Your task to perform on an android device: Open calendar and show me the first week of next month Image 0: 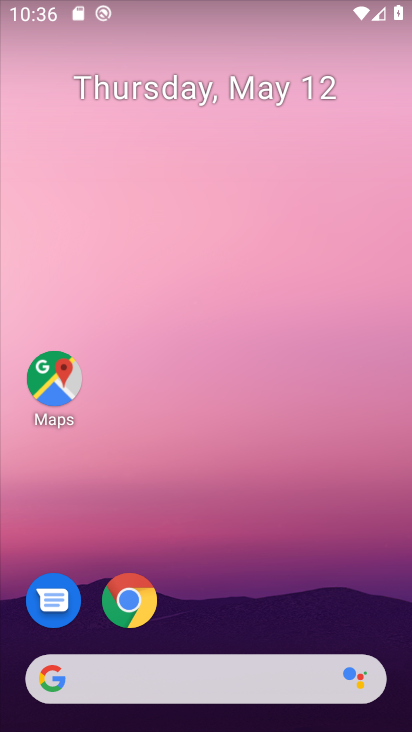
Step 0: drag from (173, 534) to (74, 62)
Your task to perform on an android device: Open calendar and show me the first week of next month Image 1: 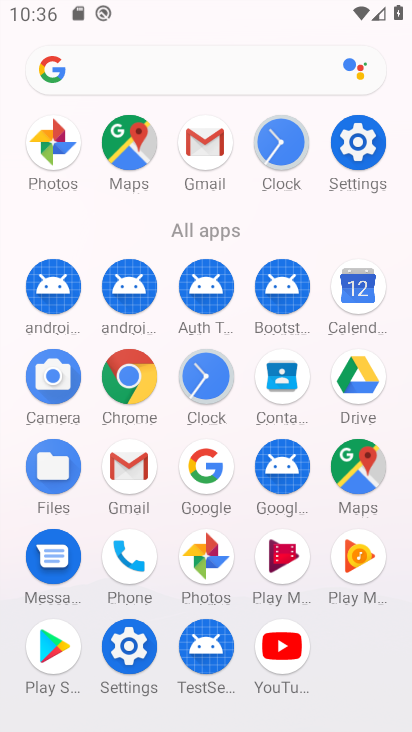
Step 1: click (367, 289)
Your task to perform on an android device: Open calendar and show me the first week of next month Image 2: 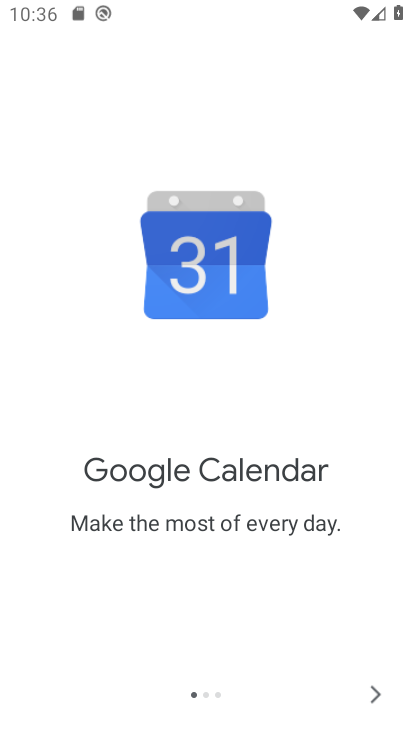
Step 2: click (372, 693)
Your task to perform on an android device: Open calendar and show me the first week of next month Image 3: 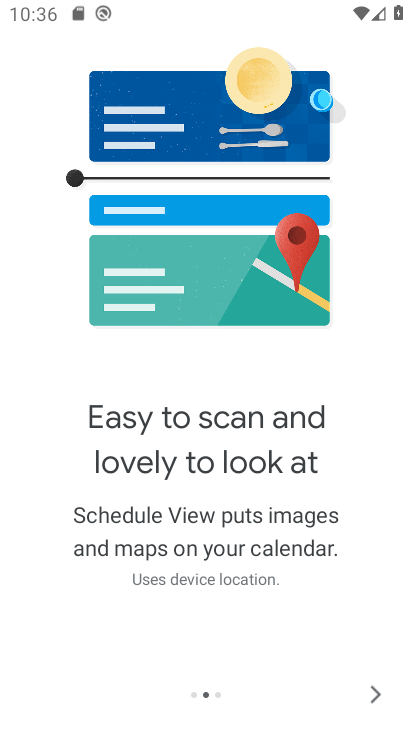
Step 3: click (372, 693)
Your task to perform on an android device: Open calendar and show me the first week of next month Image 4: 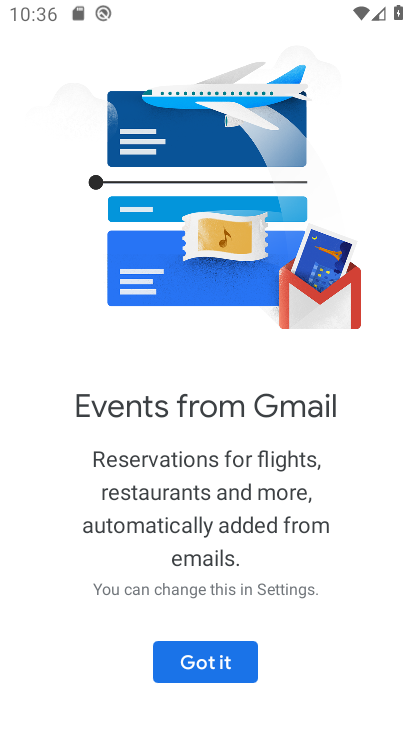
Step 4: click (200, 675)
Your task to perform on an android device: Open calendar and show me the first week of next month Image 5: 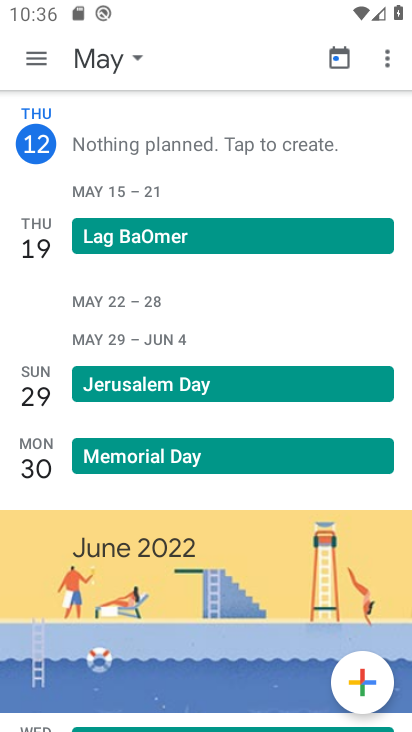
Step 5: click (101, 64)
Your task to perform on an android device: Open calendar and show me the first week of next month Image 6: 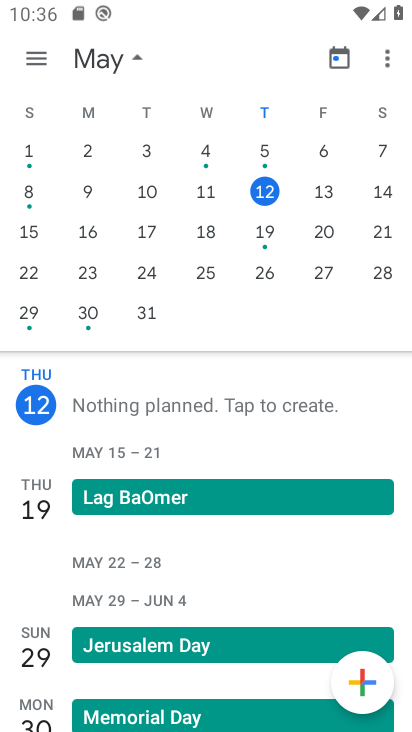
Step 6: drag from (355, 247) to (0, 250)
Your task to perform on an android device: Open calendar and show me the first week of next month Image 7: 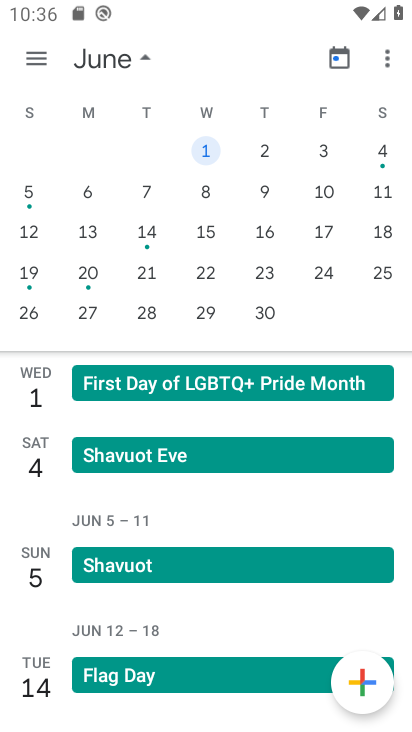
Step 7: click (41, 63)
Your task to perform on an android device: Open calendar and show me the first week of next month Image 8: 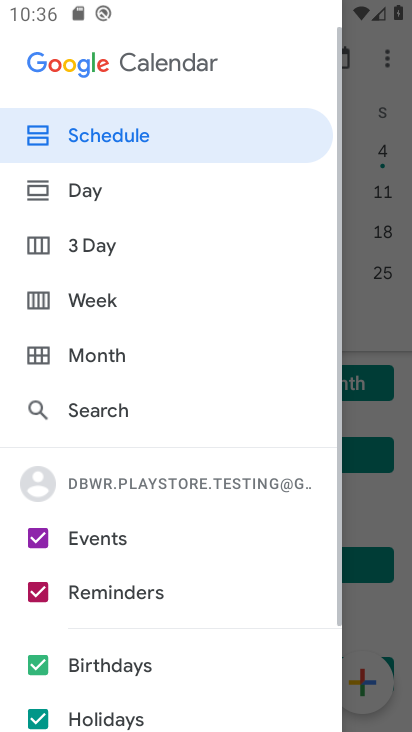
Step 8: click (109, 293)
Your task to perform on an android device: Open calendar and show me the first week of next month Image 9: 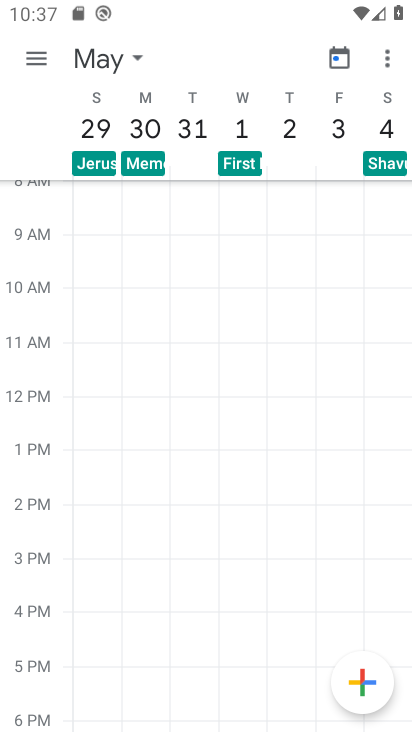
Step 9: task complete